Your task to perform on an android device: Open Android settings Image 0: 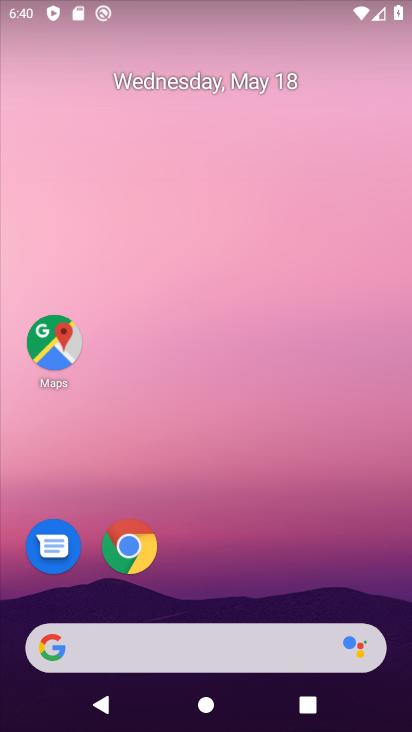
Step 0: drag from (388, 615) to (284, 121)
Your task to perform on an android device: Open Android settings Image 1: 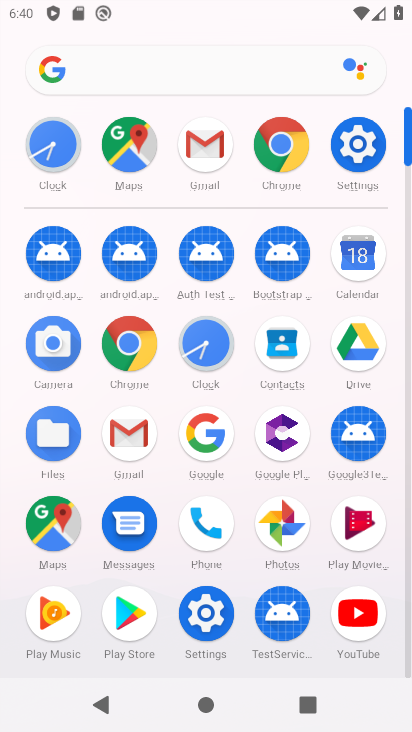
Step 1: click (369, 166)
Your task to perform on an android device: Open Android settings Image 2: 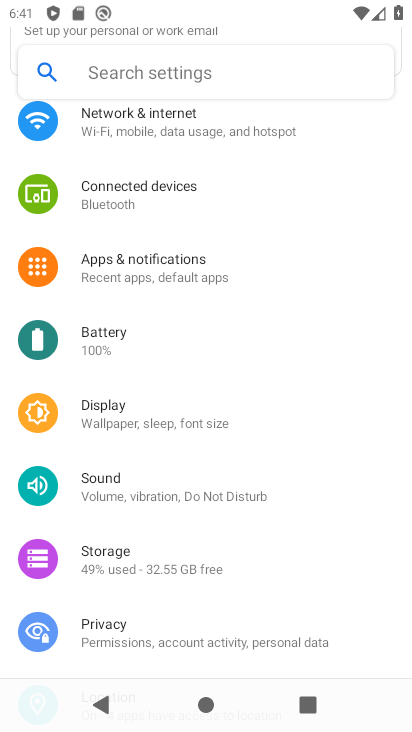
Step 2: drag from (182, 627) to (221, 168)
Your task to perform on an android device: Open Android settings Image 3: 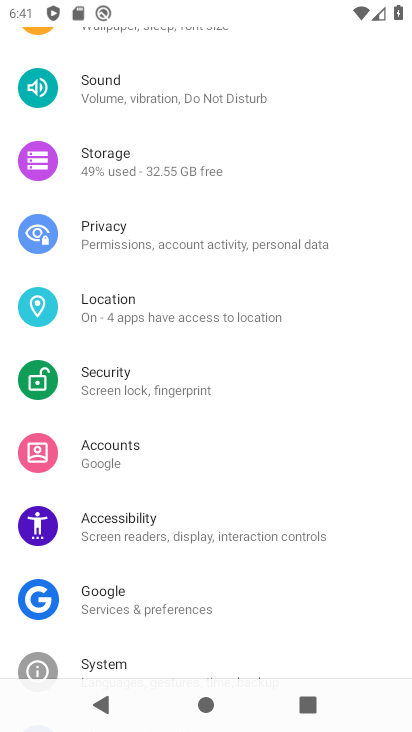
Step 3: drag from (195, 617) to (296, 107)
Your task to perform on an android device: Open Android settings Image 4: 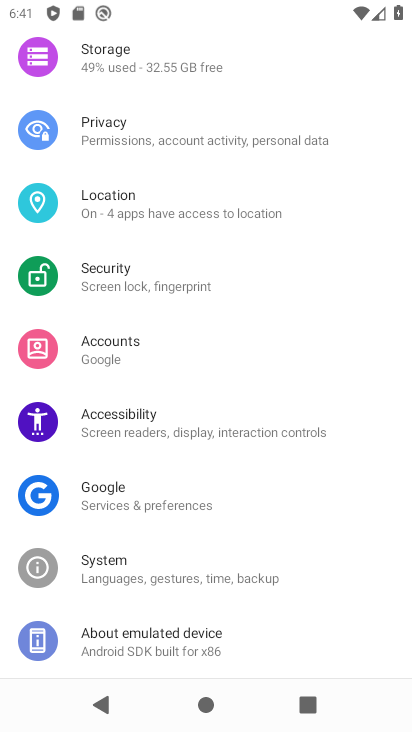
Step 4: click (210, 640)
Your task to perform on an android device: Open Android settings Image 5: 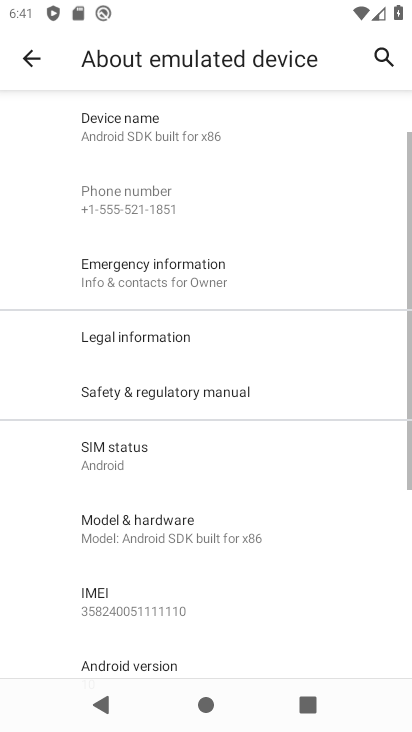
Step 5: drag from (146, 665) to (266, 166)
Your task to perform on an android device: Open Android settings Image 6: 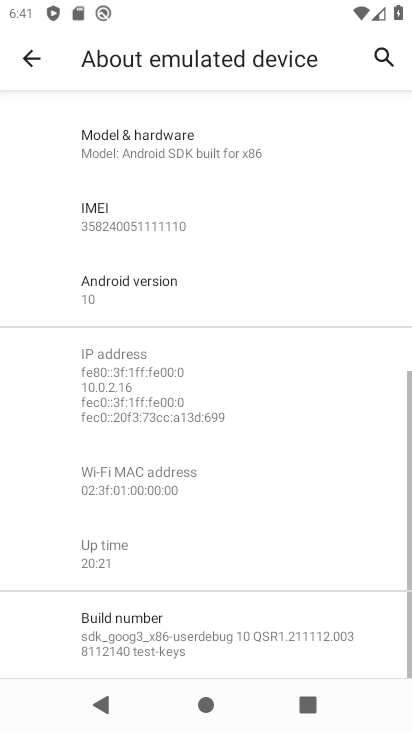
Step 6: click (217, 308)
Your task to perform on an android device: Open Android settings Image 7: 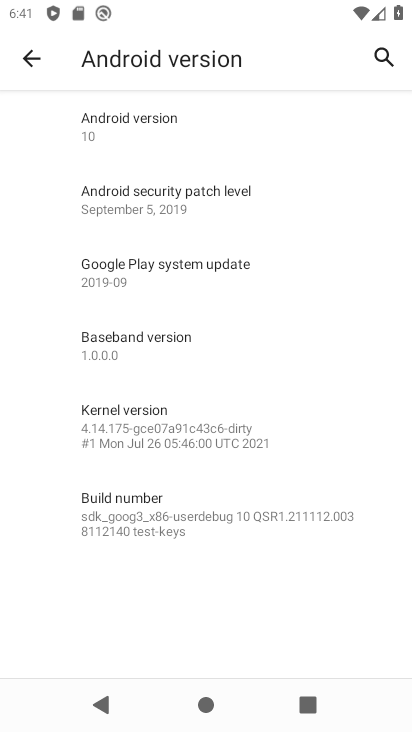
Step 7: task complete